Your task to perform on an android device: Open the Play Movies app and select the watchlist tab. Image 0: 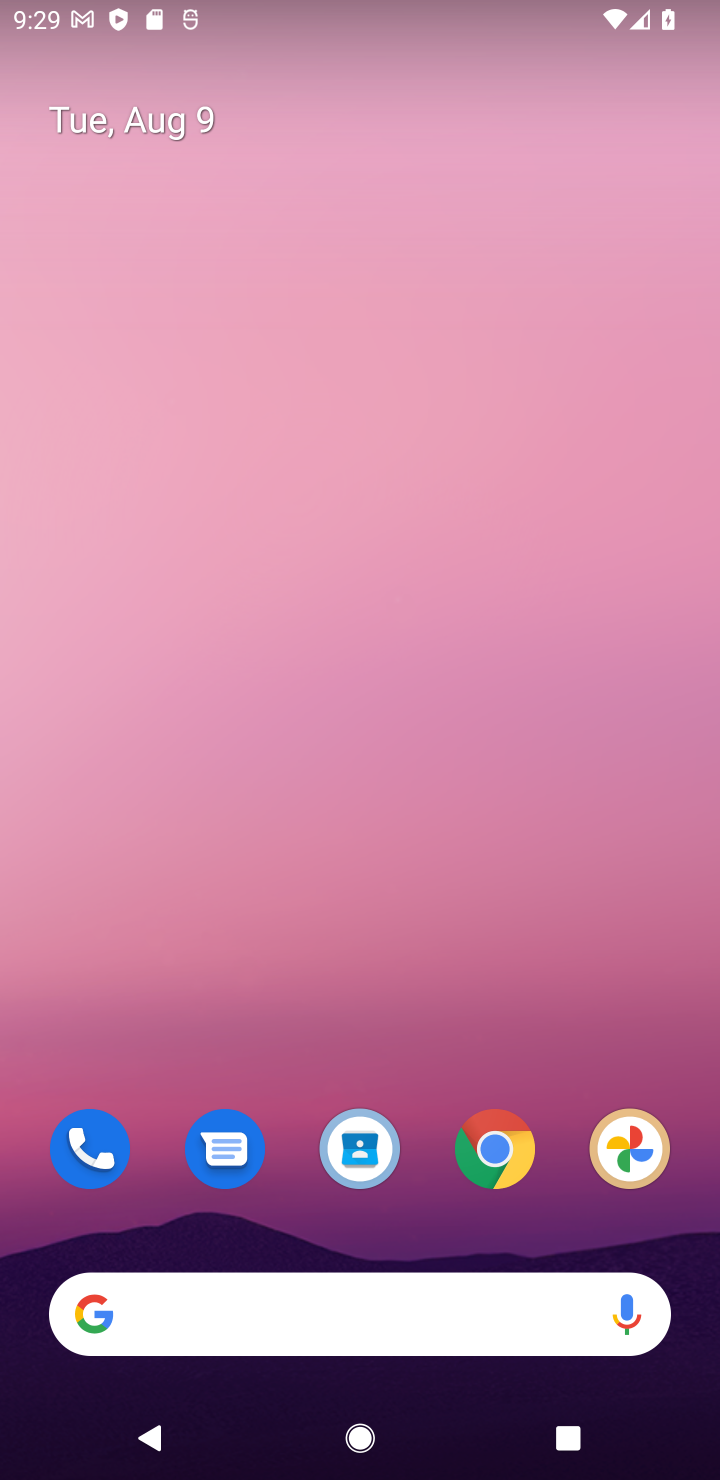
Step 0: drag from (375, 1011) to (564, 169)
Your task to perform on an android device: Open the Play Movies app and select the watchlist tab. Image 1: 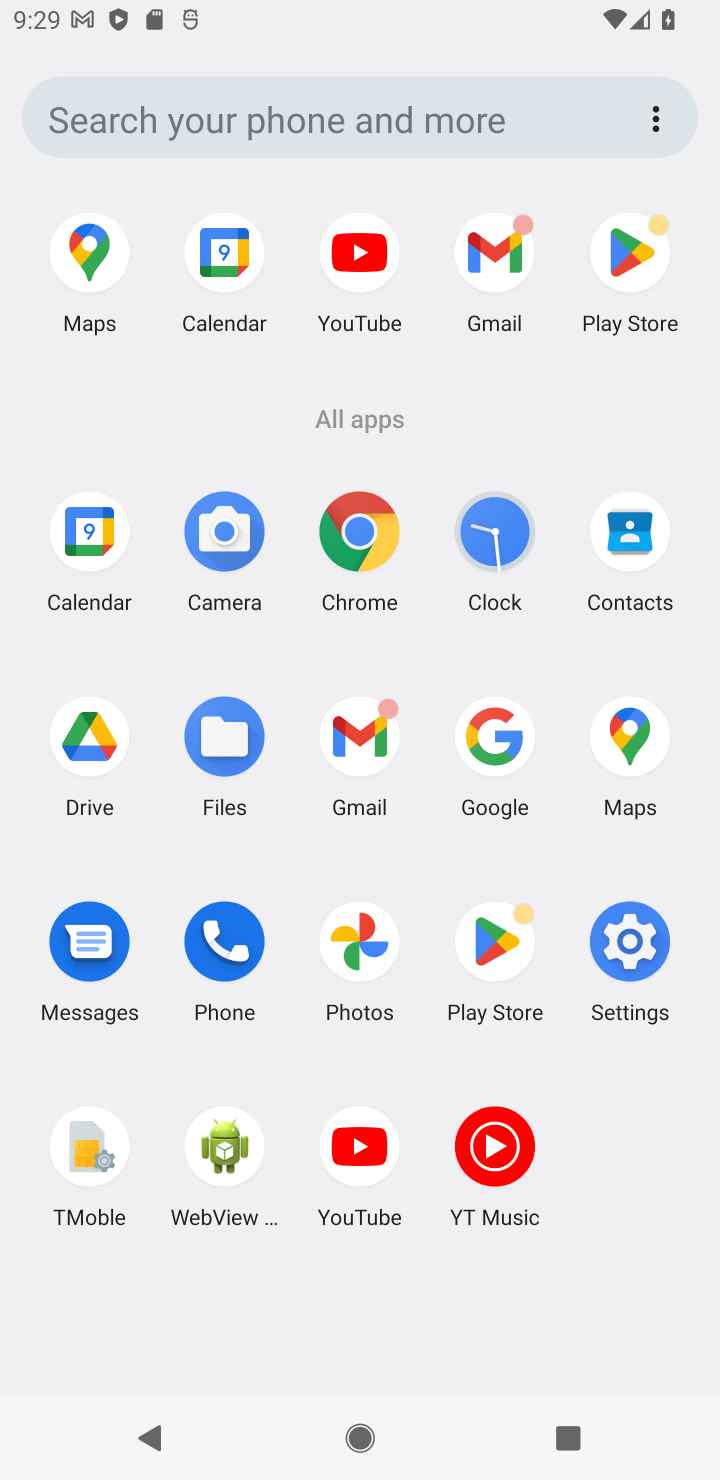
Step 1: task complete